Your task to perform on an android device: Go to CNN.com Image 0: 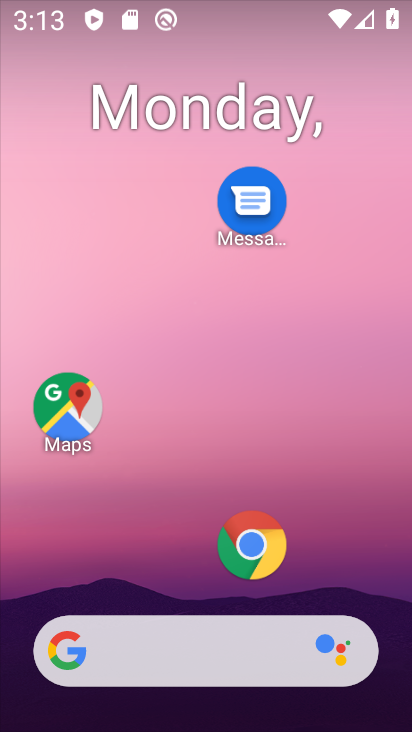
Step 0: click (264, 541)
Your task to perform on an android device: Go to CNN.com Image 1: 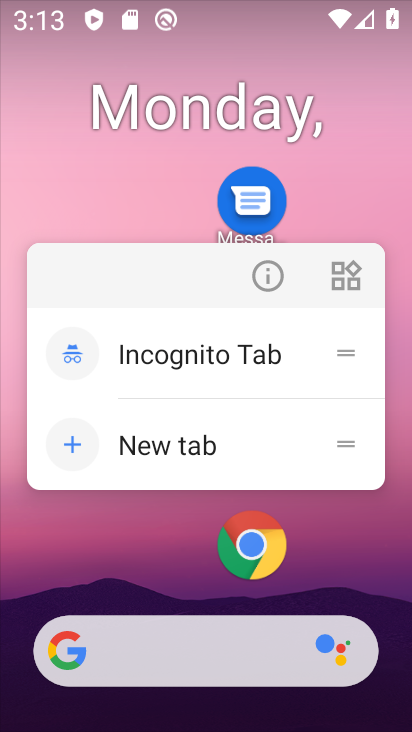
Step 1: click (262, 551)
Your task to perform on an android device: Go to CNN.com Image 2: 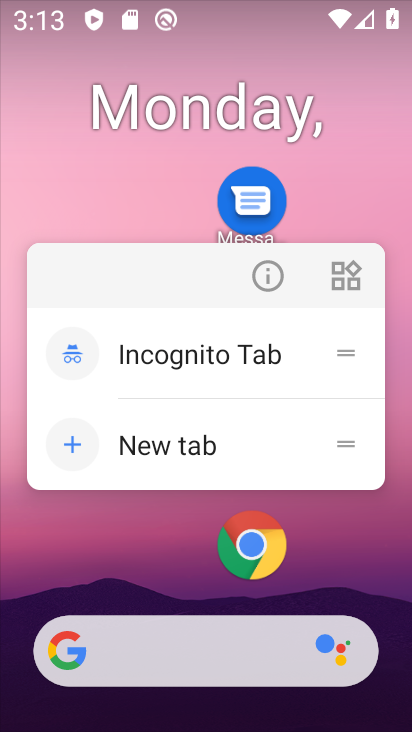
Step 2: click (255, 550)
Your task to perform on an android device: Go to CNN.com Image 3: 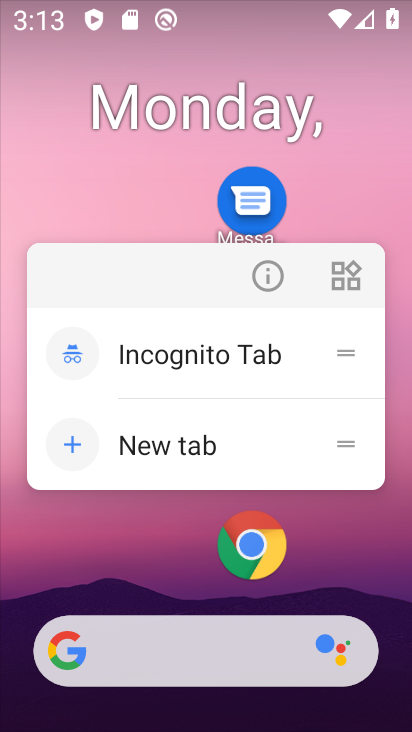
Step 3: click (258, 550)
Your task to perform on an android device: Go to CNN.com Image 4: 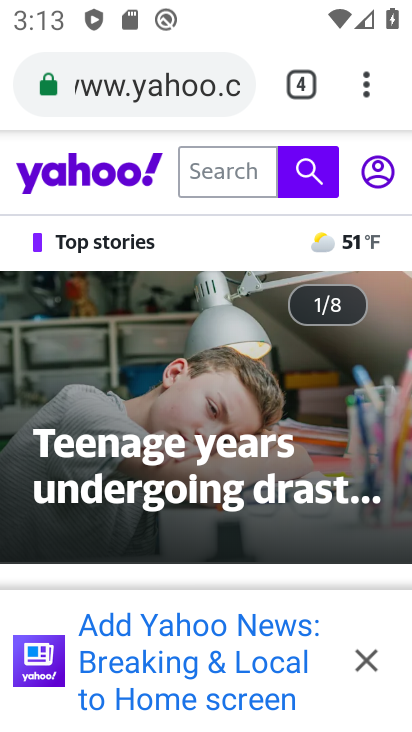
Step 4: click (307, 92)
Your task to perform on an android device: Go to CNN.com Image 5: 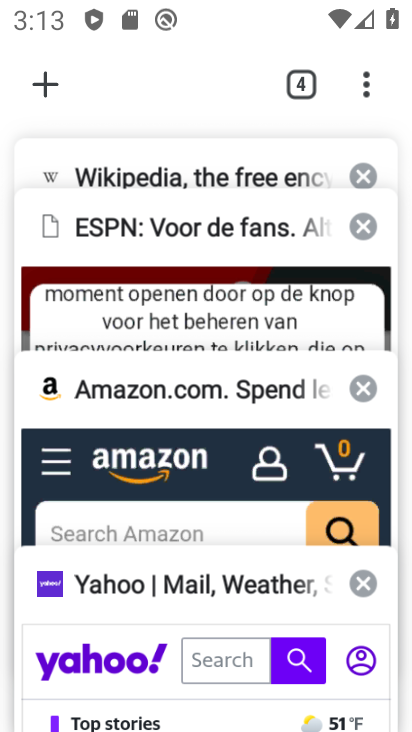
Step 5: click (40, 82)
Your task to perform on an android device: Go to CNN.com Image 6: 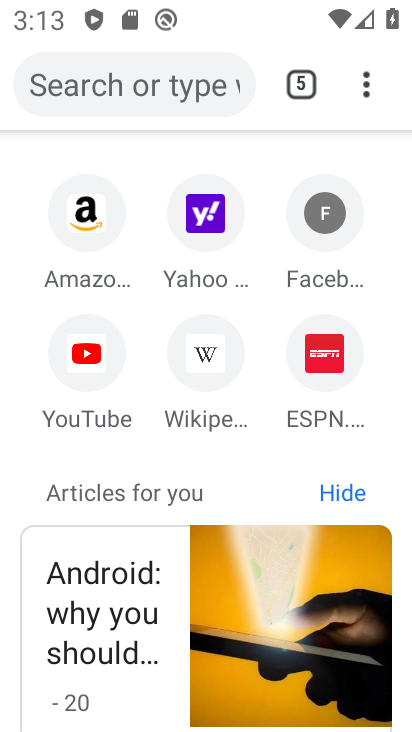
Step 6: click (81, 77)
Your task to perform on an android device: Go to CNN.com Image 7: 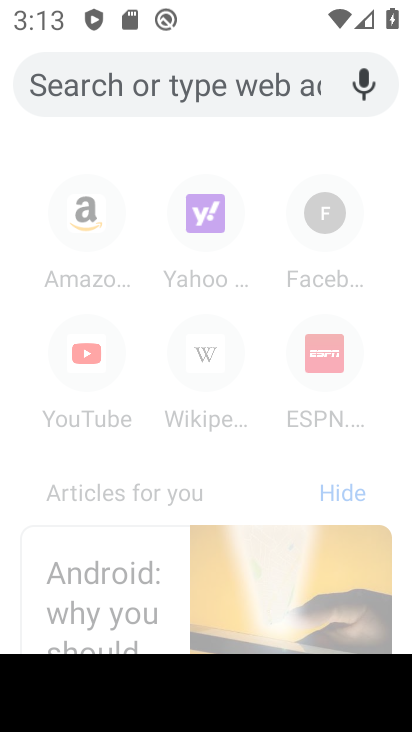
Step 7: type "cnn.com"
Your task to perform on an android device: Go to CNN.com Image 8: 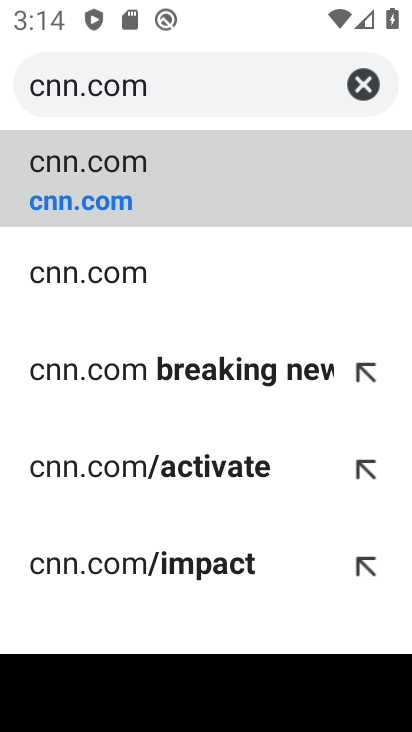
Step 8: click (132, 182)
Your task to perform on an android device: Go to CNN.com Image 9: 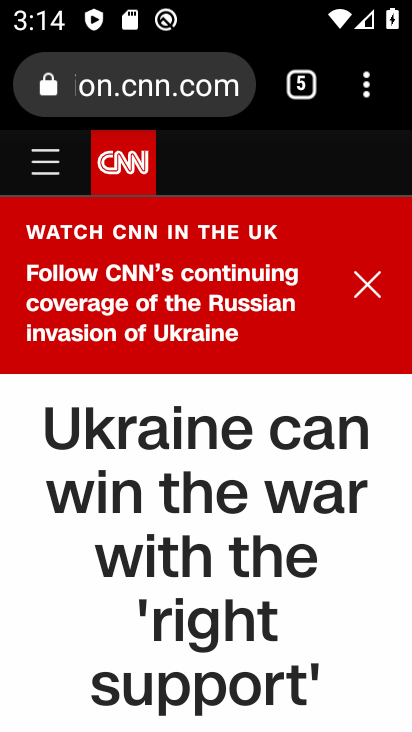
Step 9: task complete